Your task to perform on an android device: see sites visited before in the chrome app Image 0: 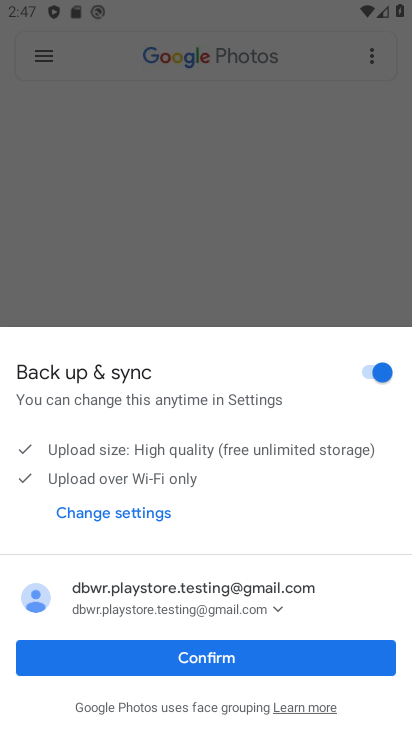
Step 0: click (288, 665)
Your task to perform on an android device: see sites visited before in the chrome app Image 1: 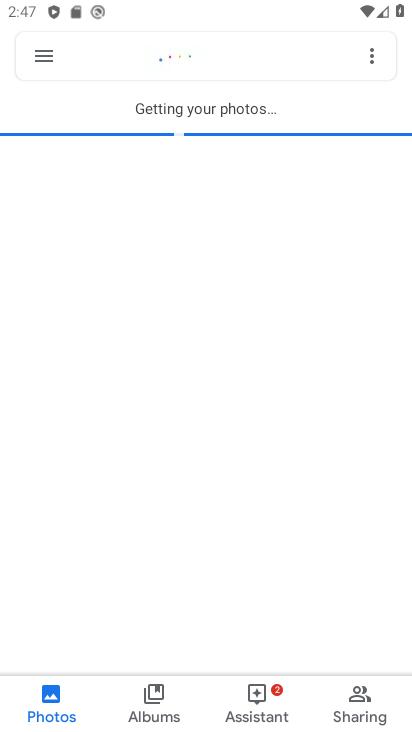
Step 1: press home button
Your task to perform on an android device: see sites visited before in the chrome app Image 2: 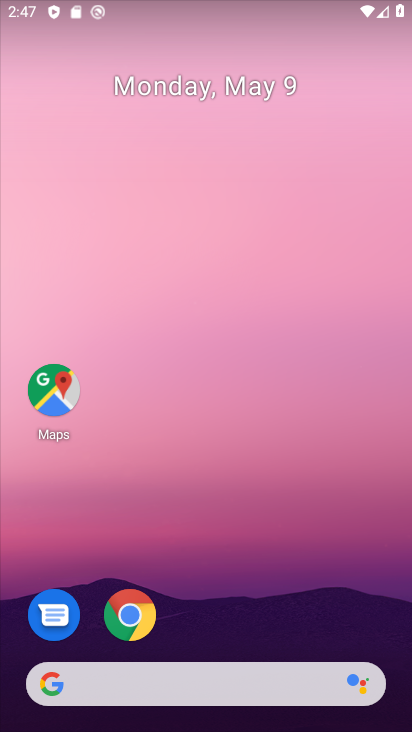
Step 2: drag from (203, 584) to (212, 262)
Your task to perform on an android device: see sites visited before in the chrome app Image 3: 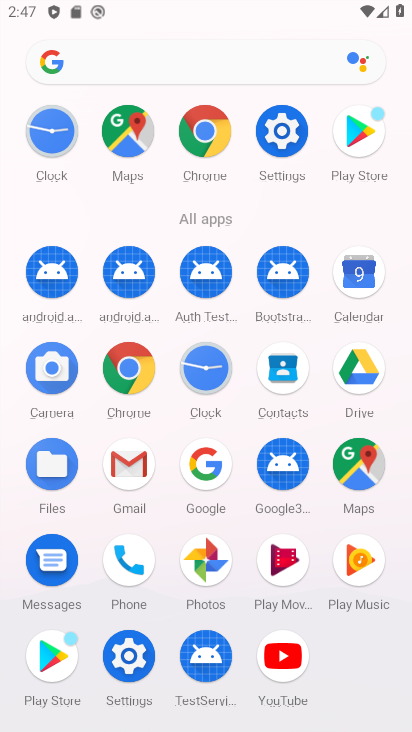
Step 3: click (191, 134)
Your task to perform on an android device: see sites visited before in the chrome app Image 4: 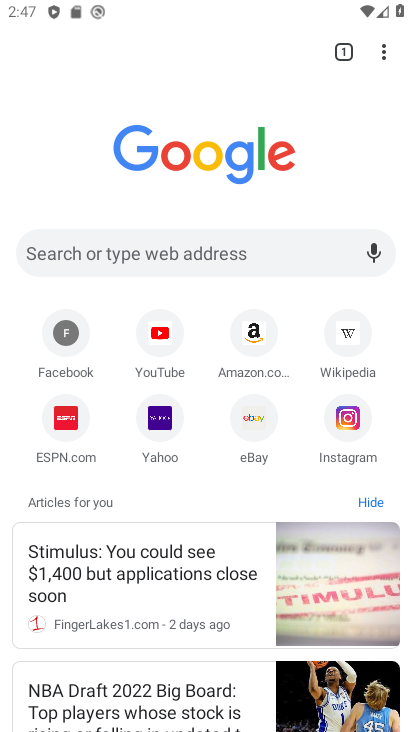
Step 4: click (372, 47)
Your task to perform on an android device: see sites visited before in the chrome app Image 5: 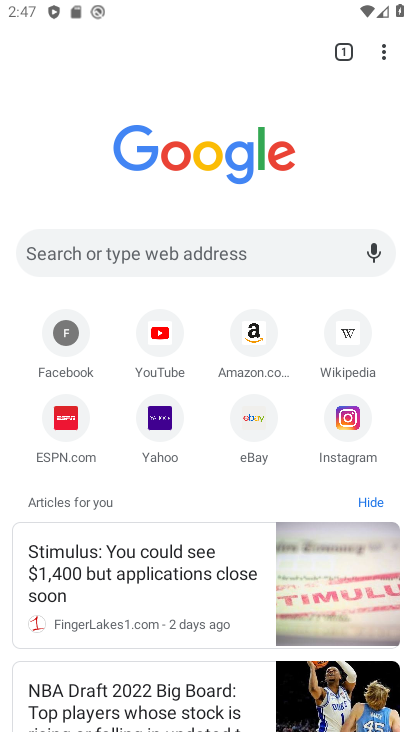
Step 5: click (371, 53)
Your task to perform on an android device: see sites visited before in the chrome app Image 6: 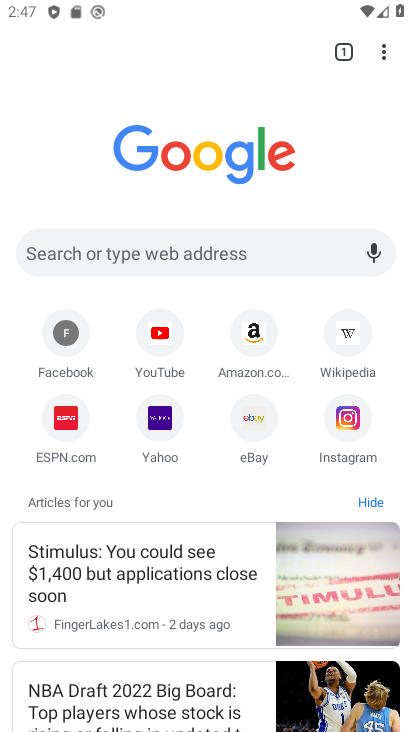
Step 6: click (372, 54)
Your task to perform on an android device: see sites visited before in the chrome app Image 7: 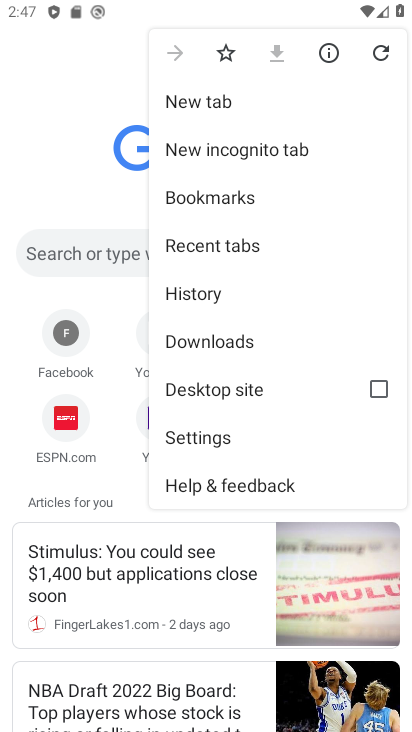
Step 7: click (216, 289)
Your task to perform on an android device: see sites visited before in the chrome app Image 8: 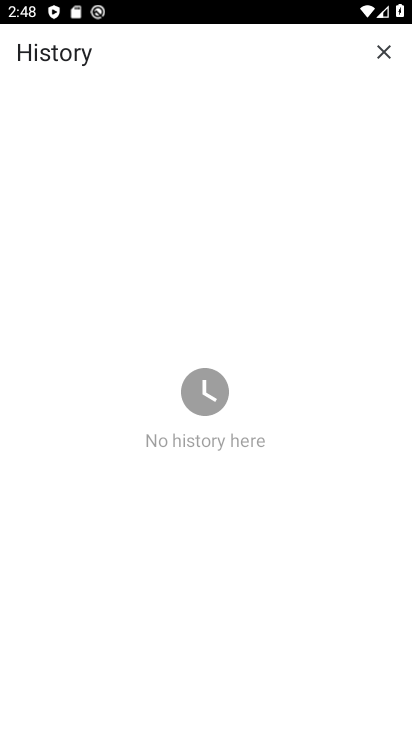
Step 8: task complete